Your task to perform on an android device: check android version Image 0: 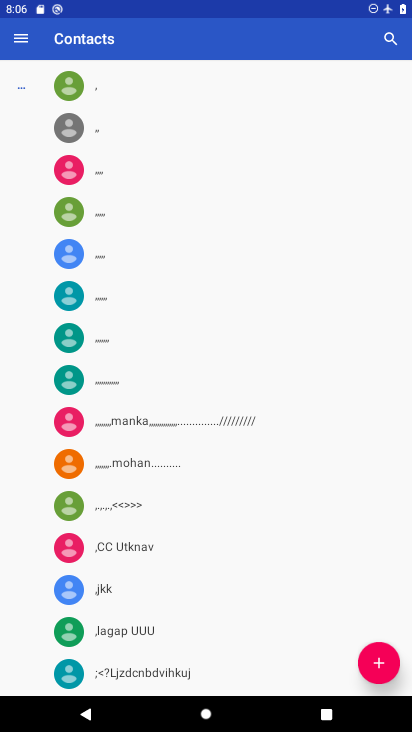
Step 0: press home button
Your task to perform on an android device: check android version Image 1: 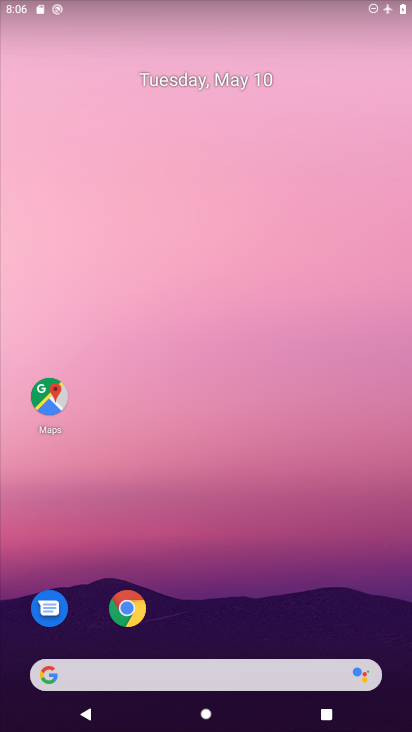
Step 1: drag from (205, 574) to (212, 217)
Your task to perform on an android device: check android version Image 2: 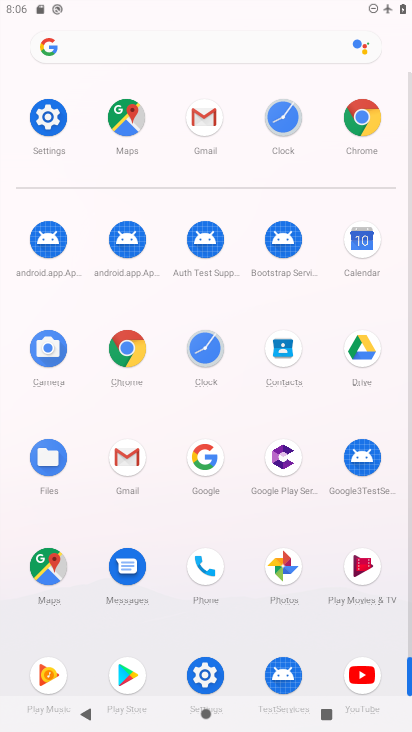
Step 2: click (45, 120)
Your task to perform on an android device: check android version Image 3: 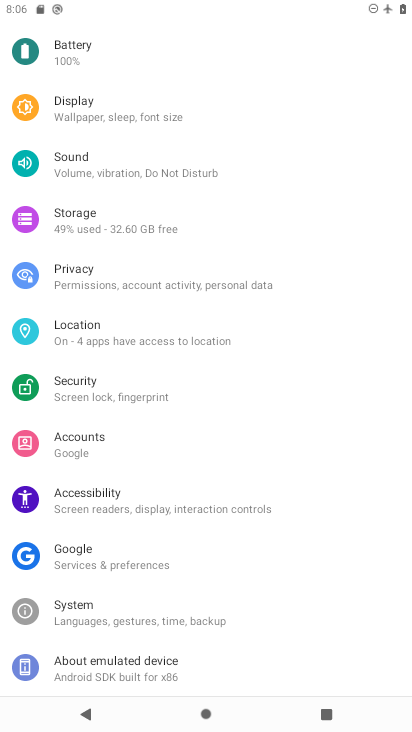
Step 3: click (145, 661)
Your task to perform on an android device: check android version Image 4: 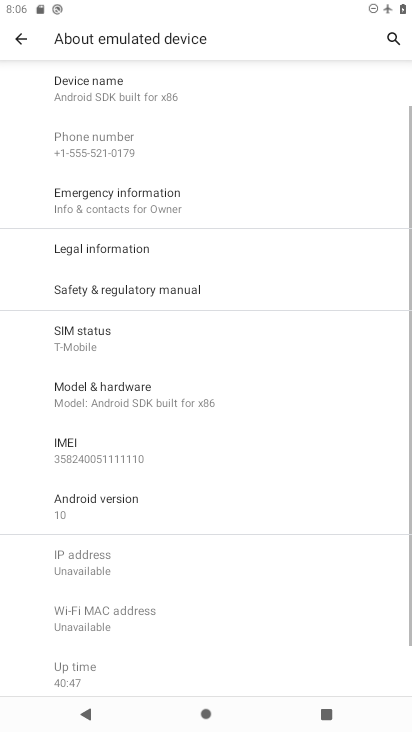
Step 4: click (81, 496)
Your task to perform on an android device: check android version Image 5: 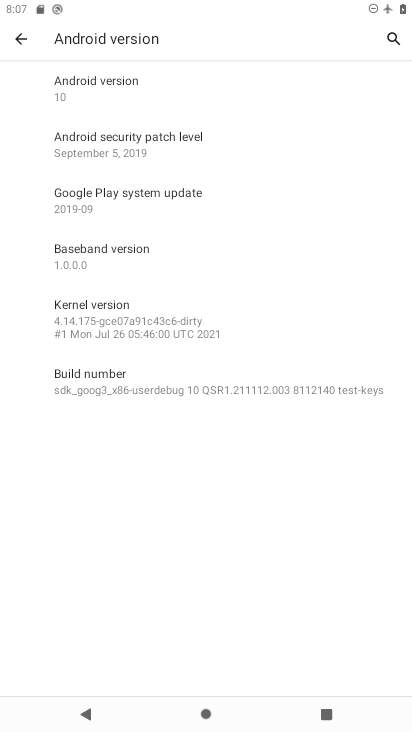
Step 5: task complete